Your task to perform on an android device: turn on data saver in the chrome app Image 0: 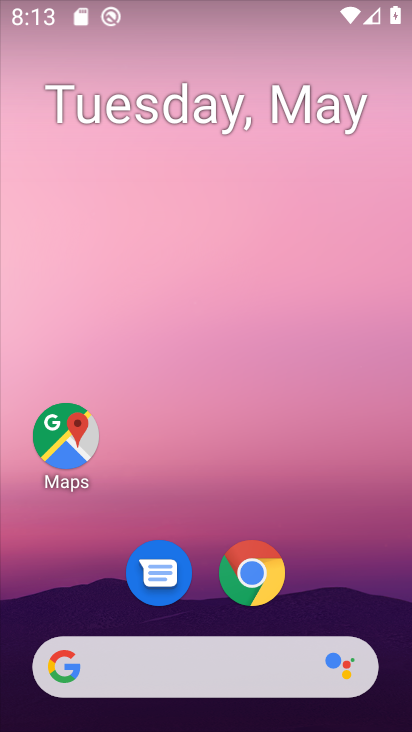
Step 0: click (257, 573)
Your task to perform on an android device: turn on data saver in the chrome app Image 1: 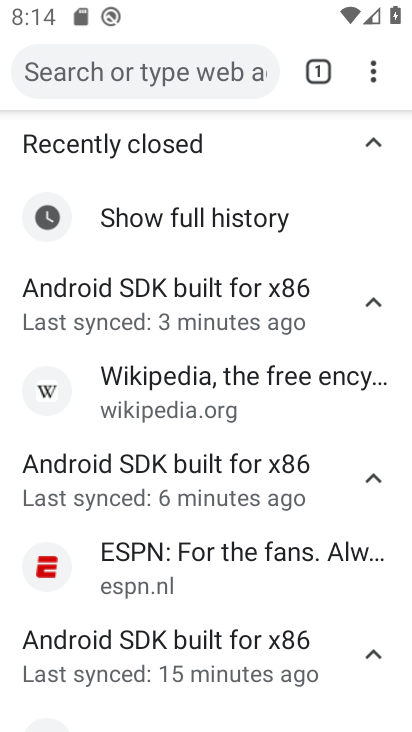
Step 1: click (368, 69)
Your task to perform on an android device: turn on data saver in the chrome app Image 2: 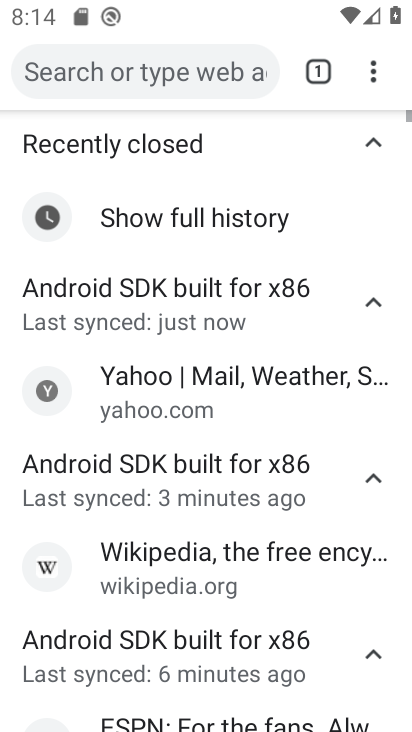
Step 2: click (372, 70)
Your task to perform on an android device: turn on data saver in the chrome app Image 3: 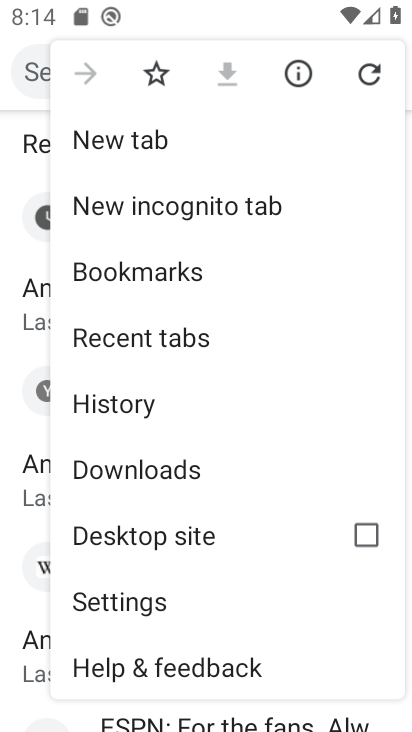
Step 3: click (111, 595)
Your task to perform on an android device: turn on data saver in the chrome app Image 4: 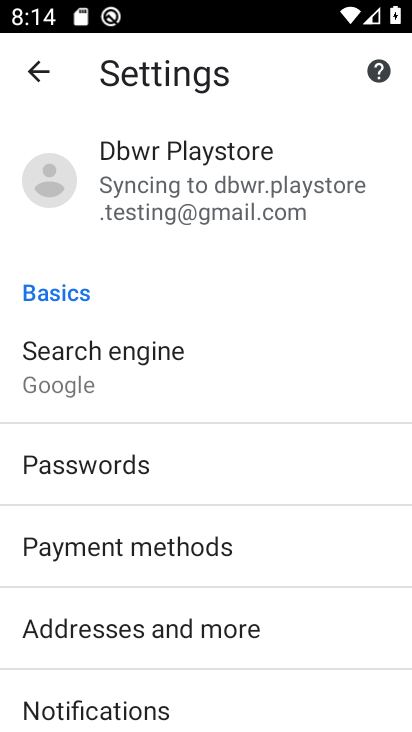
Step 4: drag from (266, 670) to (271, 338)
Your task to perform on an android device: turn on data saver in the chrome app Image 5: 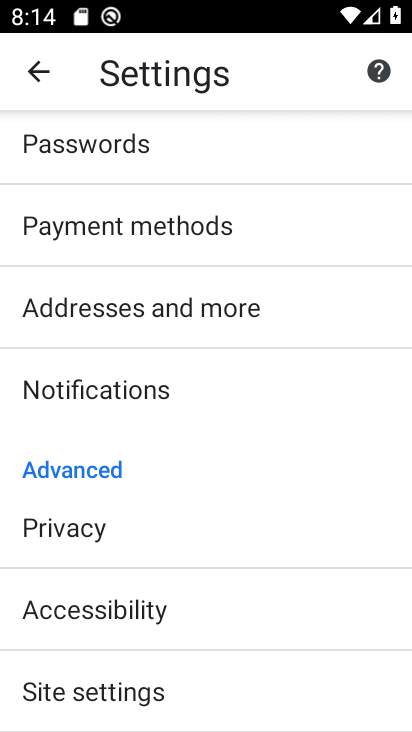
Step 5: drag from (219, 710) to (240, 400)
Your task to perform on an android device: turn on data saver in the chrome app Image 6: 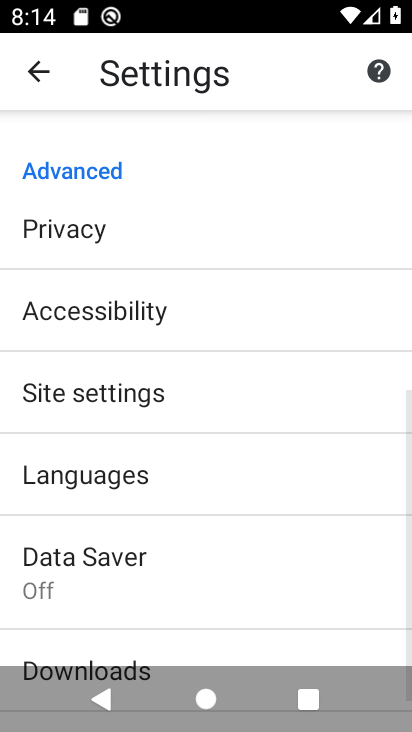
Step 6: click (56, 569)
Your task to perform on an android device: turn on data saver in the chrome app Image 7: 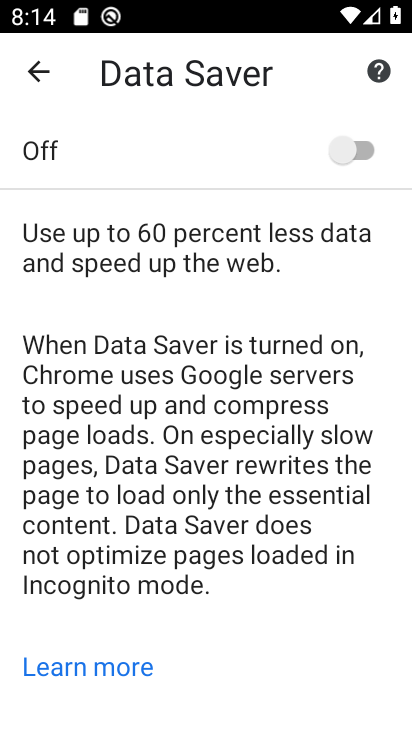
Step 7: click (358, 156)
Your task to perform on an android device: turn on data saver in the chrome app Image 8: 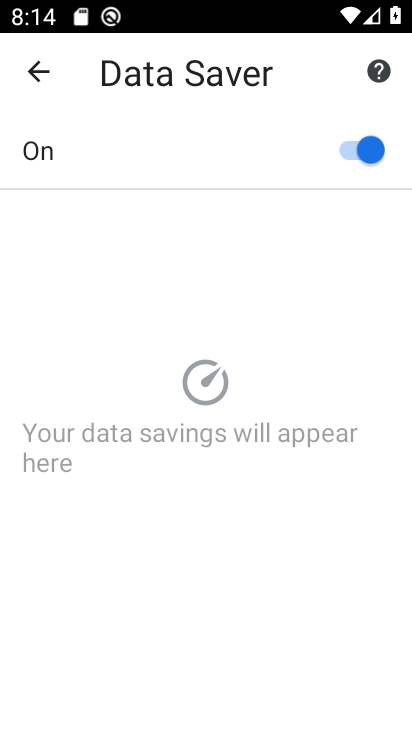
Step 8: task complete